Your task to perform on an android device: Go to ESPN.com Image 0: 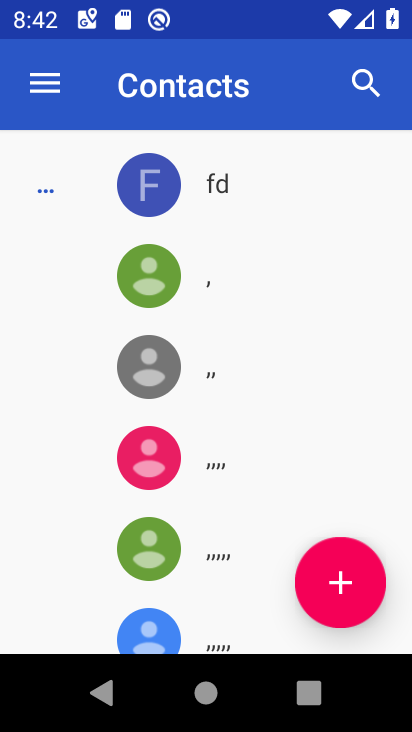
Step 0: press home button
Your task to perform on an android device: Go to ESPN.com Image 1: 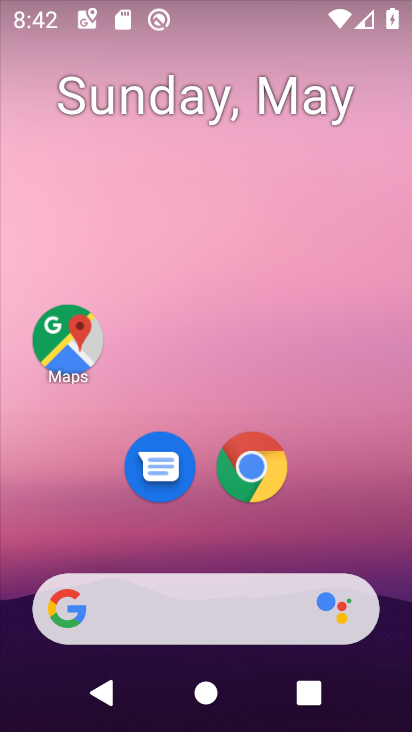
Step 1: drag from (380, 523) to (343, 148)
Your task to perform on an android device: Go to ESPN.com Image 2: 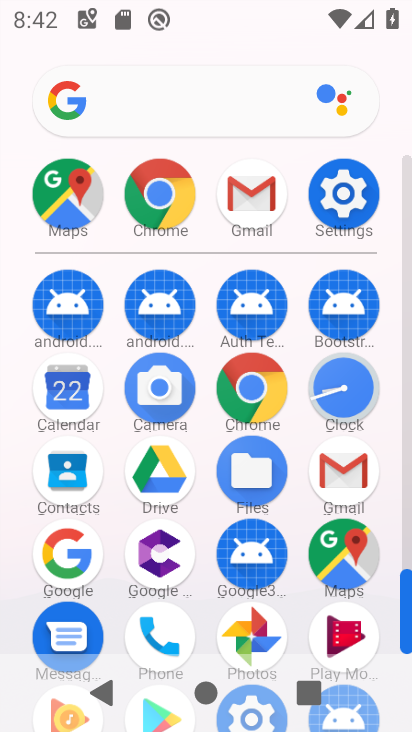
Step 2: click (283, 389)
Your task to perform on an android device: Go to ESPN.com Image 3: 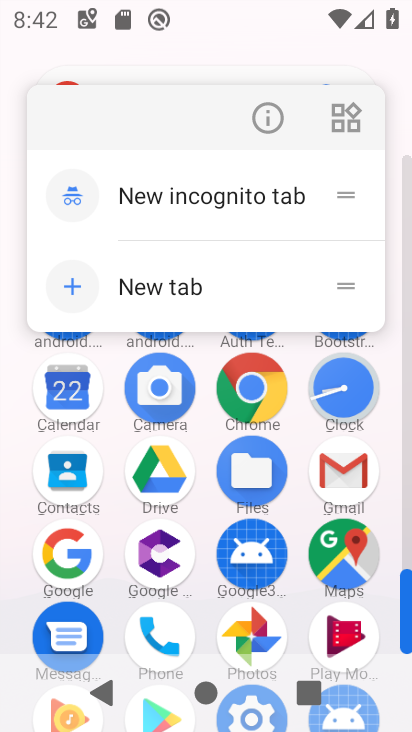
Step 3: click (269, 397)
Your task to perform on an android device: Go to ESPN.com Image 4: 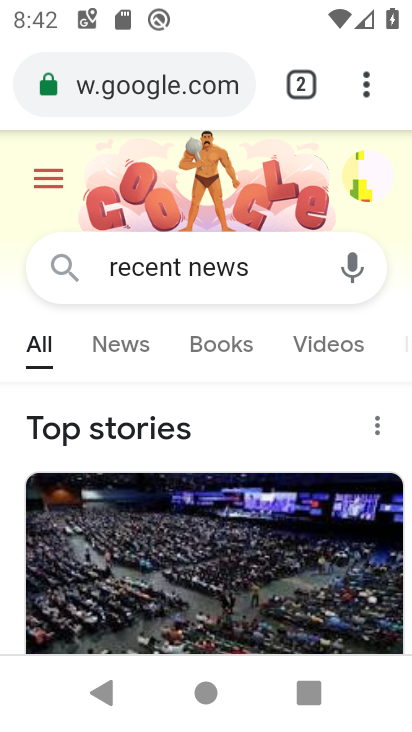
Step 4: task complete